Your task to perform on an android device: turn on data saver in the chrome app Image 0: 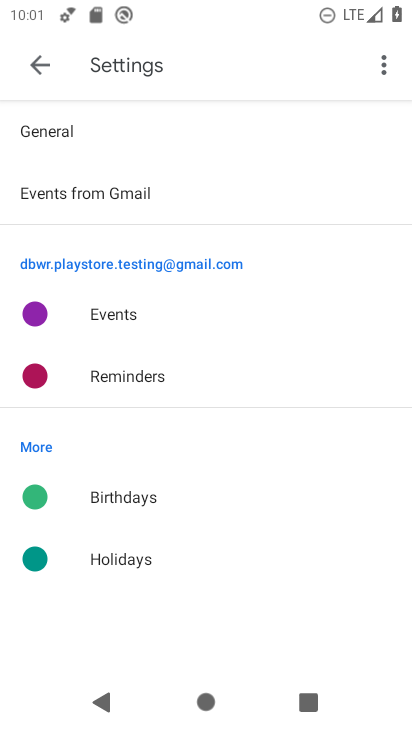
Step 0: press home button
Your task to perform on an android device: turn on data saver in the chrome app Image 1: 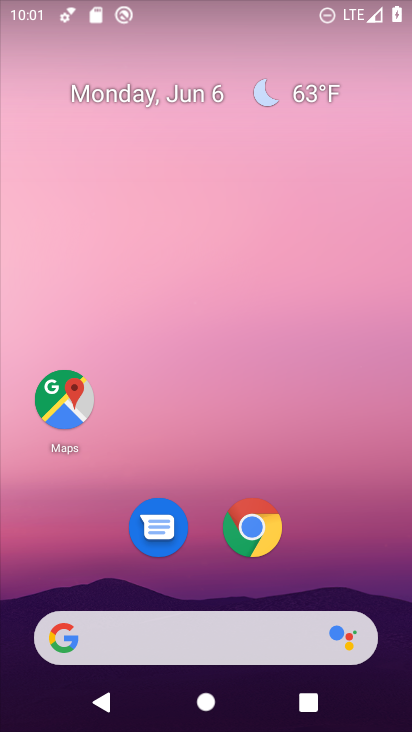
Step 1: drag from (352, 546) to (365, 121)
Your task to perform on an android device: turn on data saver in the chrome app Image 2: 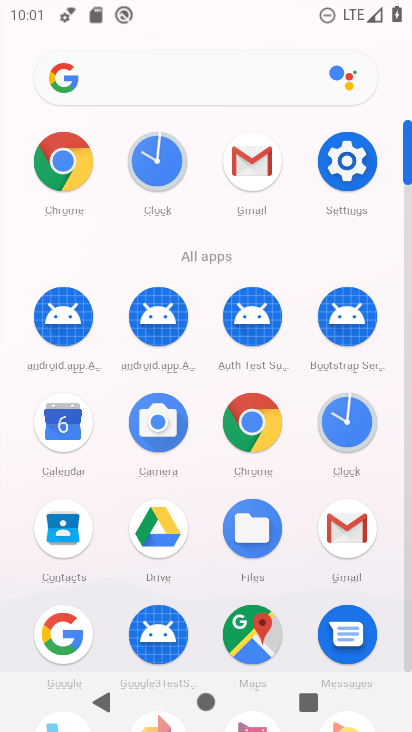
Step 2: click (262, 435)
Your task to perform on an android device: turn on data saver in the chrome app Image 3: 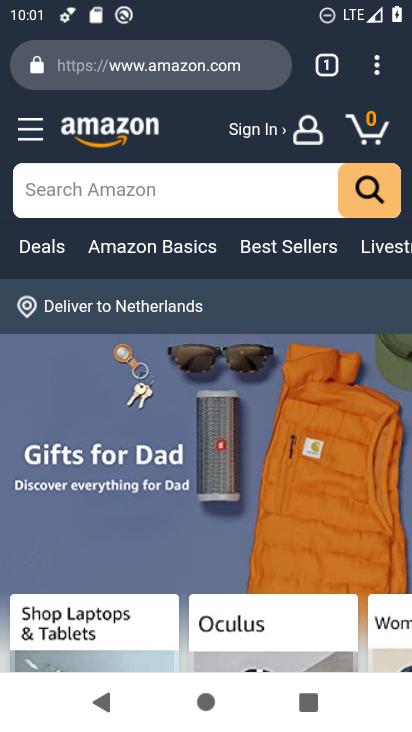
Step 3: click (377, 75)
Your task to perform on an android device: turn on data saver in the chrome app Image 4: 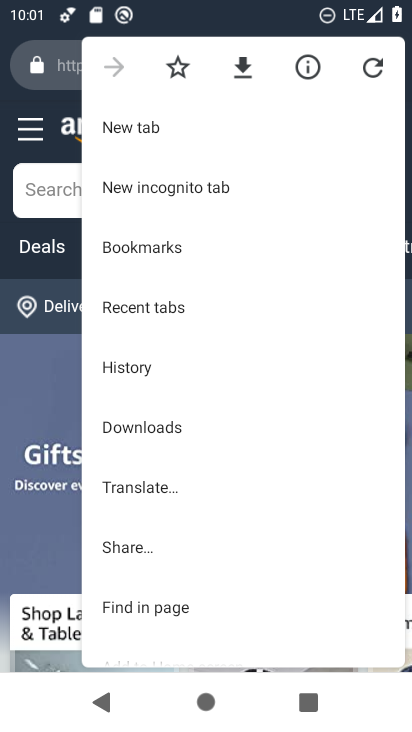
Step 4: drag from (299, 391) to (292, 306)
Your task to perform on an android device: turn on data saver in the chrome app Image 5: 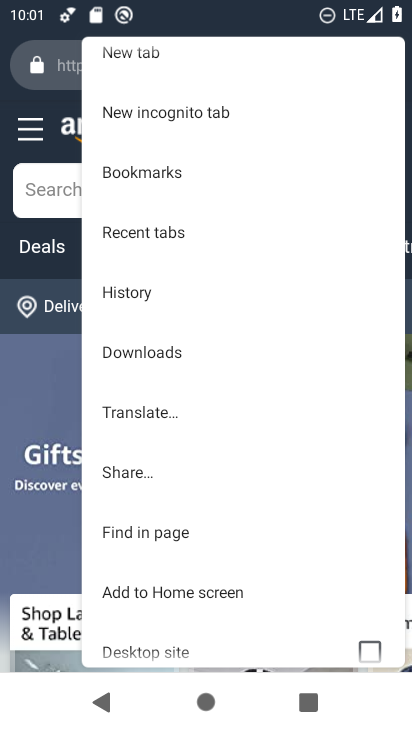
Step 5: drag from (316, 476) to (310, 290)
Your task to perform on an android device: turn on data saver in the chrome app Image 6: 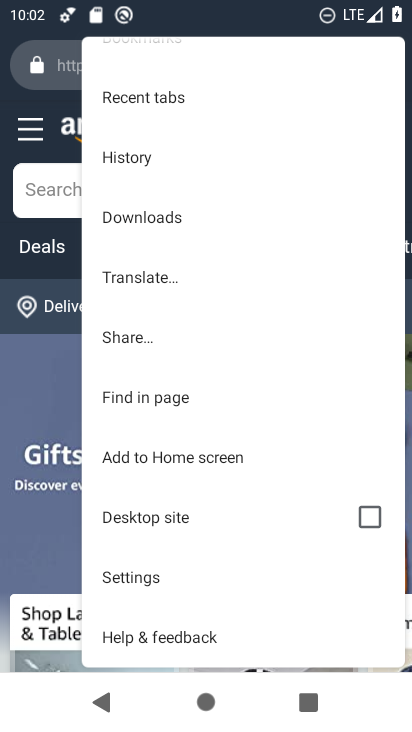
Step 6: click (174, 583)
Your task to perform on an android device: turn on data saver in the chrome app Image 7: 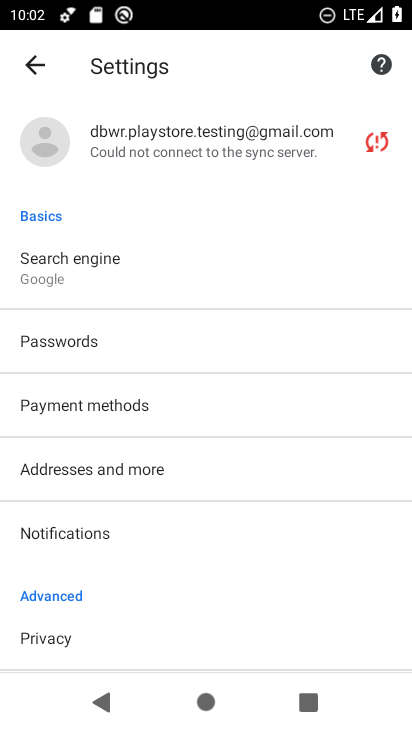
Step 7: drag from (353, 533) to (359, 448)
Your task to perform on an android device: turn on data saver in the chrome app Image 8: 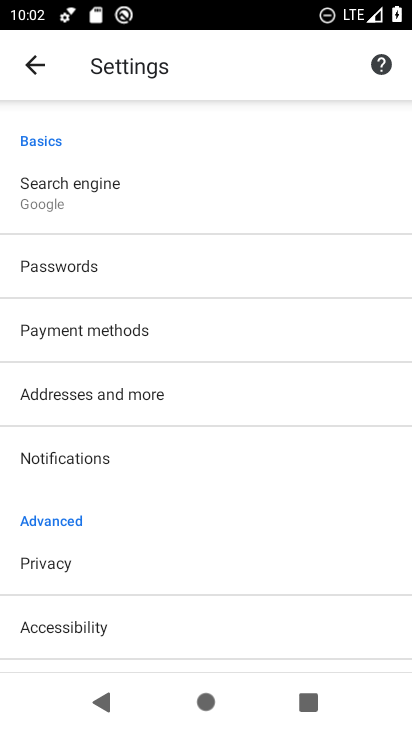
Step 8: drag from (315, 519) to (312, 431)
Your task to perform on an android device: turn on data saver in the chrome app Image 9: 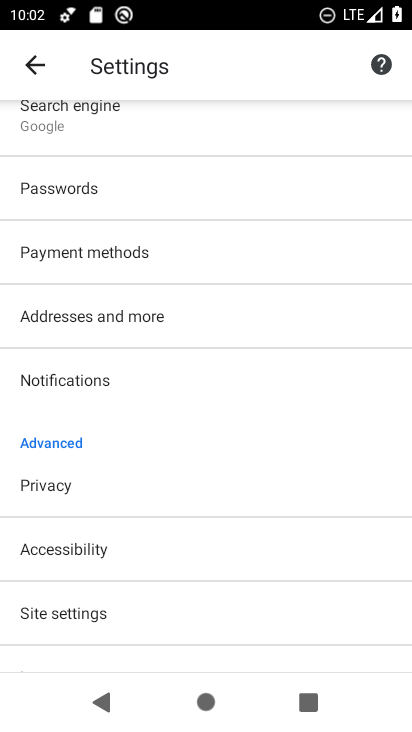
Step 9: drag from (342, 569) to (341, 465)
Your task to perform on an android device: turn on data saver in the chrome app Image 10: 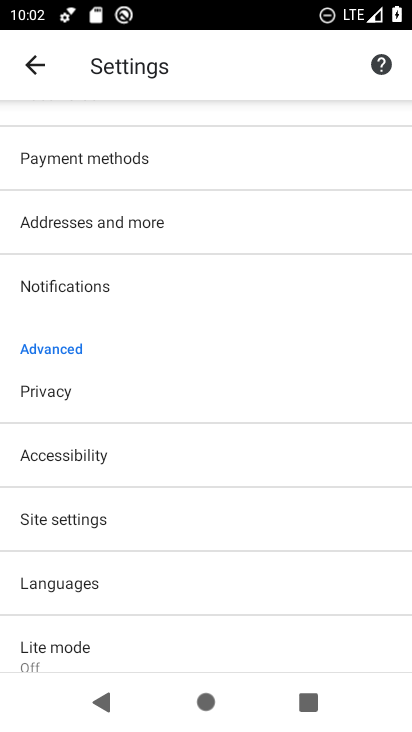
Step 10: drag from (349, 590) to (341, 468)
Your task to perform on an android device: turn on data saver in the chrome app Image 11: 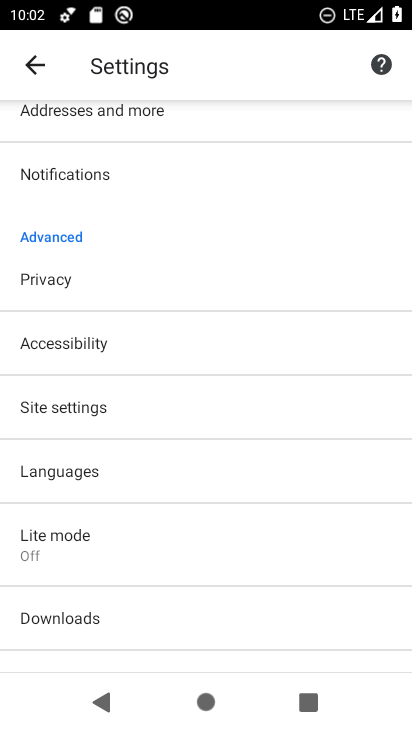
Step 11: drag from (285, 544) to (282, 431)
Your task to perform on an android device: turn on data saver in the chrome app Image 12: 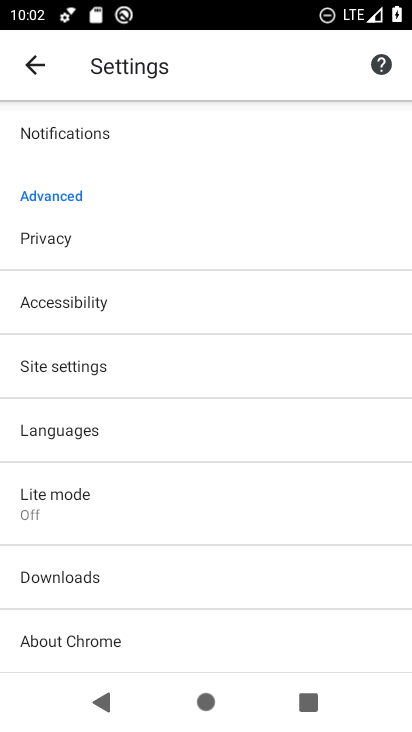
Step 12: click (264, 516)
Your task to perform on an android device: turn on data saver in the chrome app Image 13: 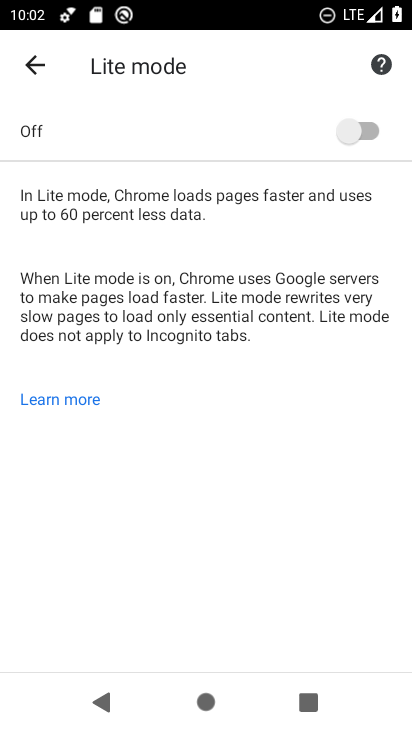
Step 13: click (354, 132)
Your task to perform on an android device: turn on data saver in the chrome app Image 14: 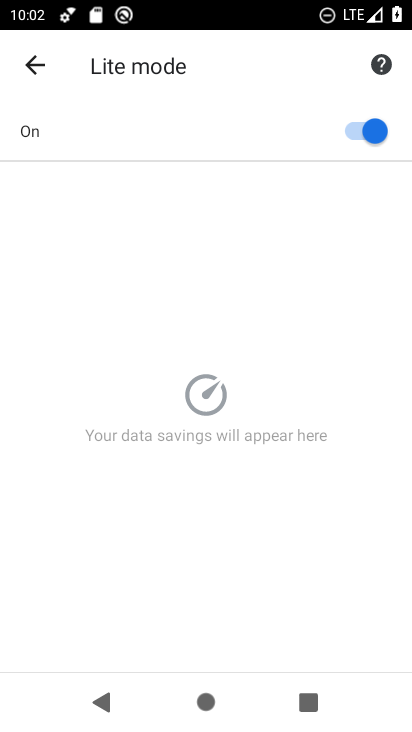
Step 14: task complete